Your task to perform on an android device: Do I have any events tomorrow? Image 0: 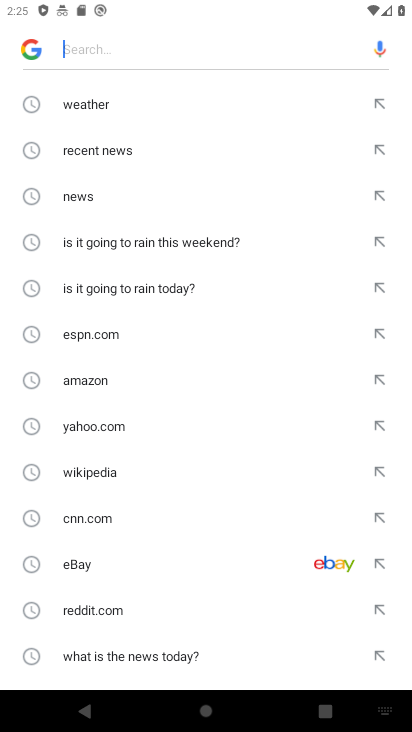
Step 0: press back button
Your task to perform on an android device: Do I have any events tomorrow? Image 1: 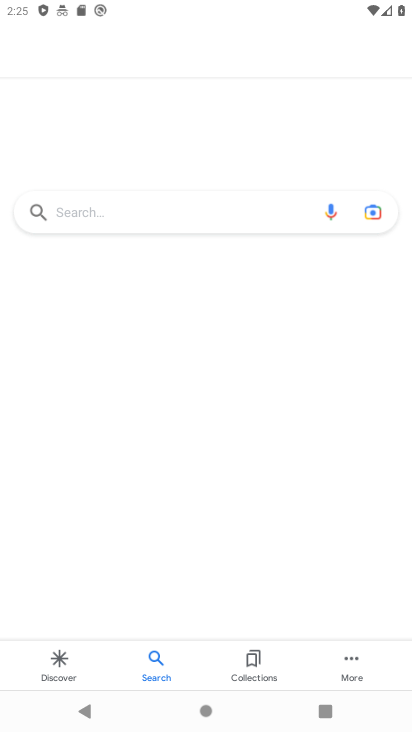
Step 1: press home button
Your task to perform on an android device: Do I have any events tomorrow? Image 2: 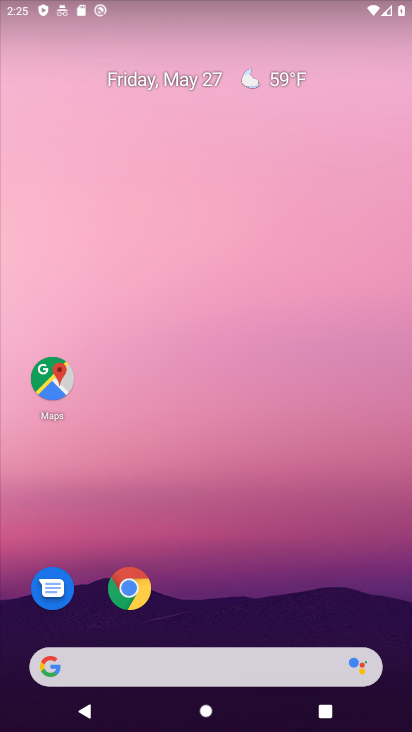
Step 2: drag from (260, 604) to (197, 298)
Your task to perform on an android device: Do I have any events tomorrow? Image 3: 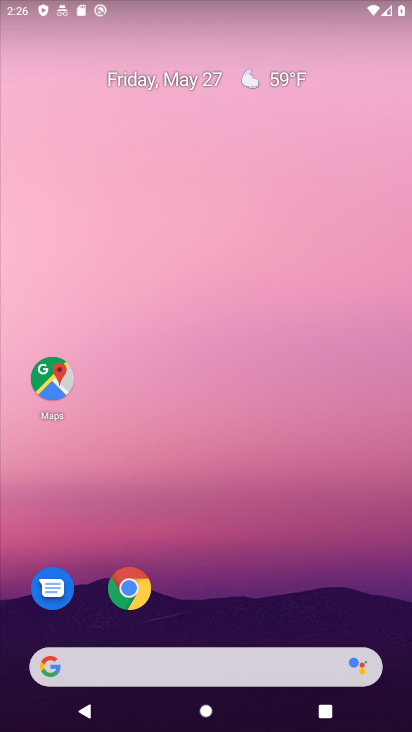
Step 3: drag from (285, 662) to (225, 58)
Your task to perform on an android device: Do I have any events tomorrow? Image 4: 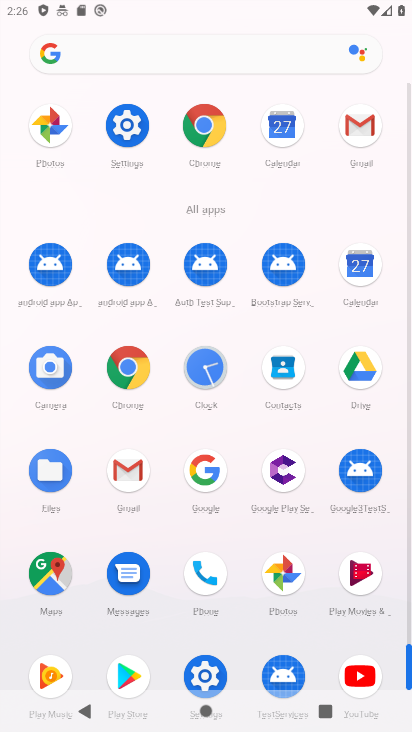
Step 4: click (358, 256)
Your task to perform on an android device: Do I have any events tomorrow? Image 5: 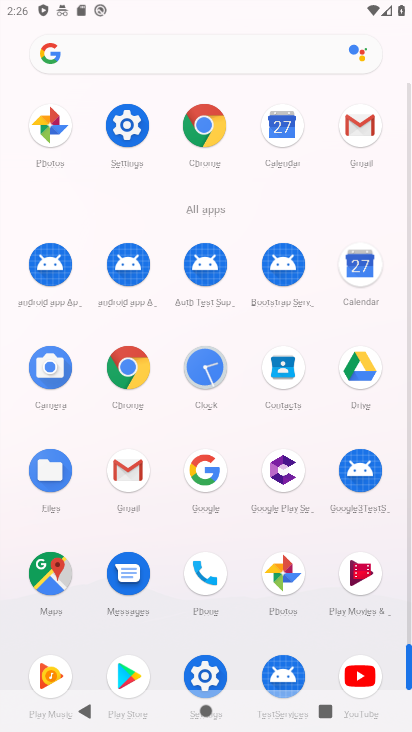
Step 5: click (358, 256)
Your task to perform on an android device: Do I have any events tomorrow? Image 6: 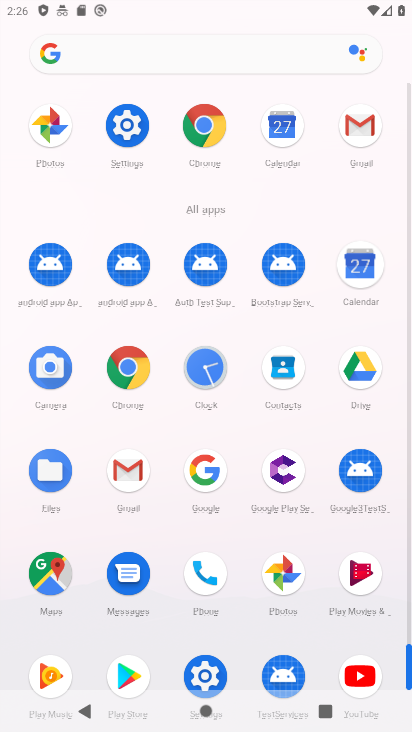
Step 6: click (358, 256)
Your task to perform on an android device: Do I have any events tomorrow? Image 7: 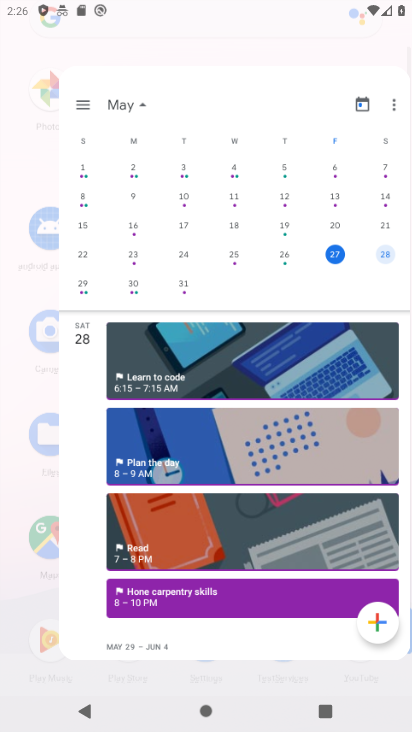
Step 7: click (358, 256)
Your task to perform on an android device: Do I have any events tomorrow? Image 8: 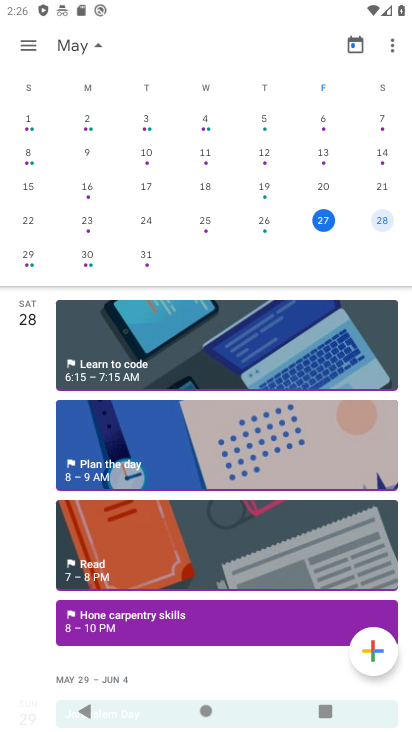
Step 8: click (140, 248)
Your task to perform on an android device: Do I have any events tomorrow? Image 9: 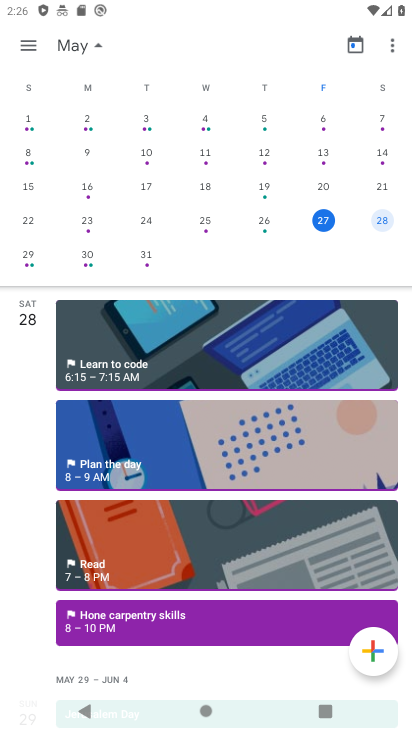
Step 9: click (140, 249)
Your task to perform on an android device: Do I have any events tomorrow? Image 10: 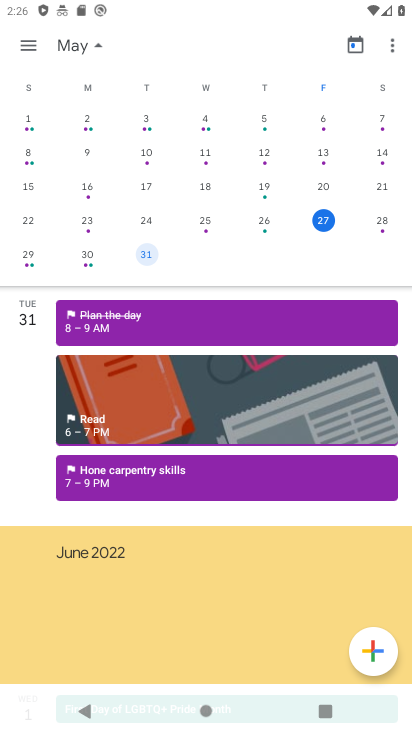
Step 10: click (140, 249)
Your task to perform on an android device: Do I have any events tomorrow? Image 11: 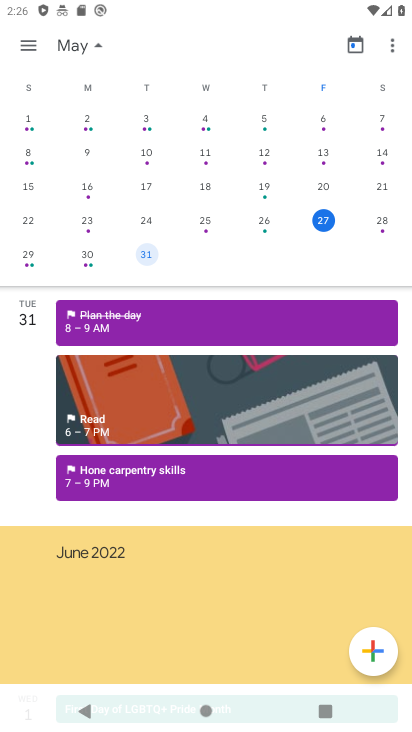
Step 11: click (140, 249)
Your task to perform on an android device: Do I have any events tomorrow? Image 12: 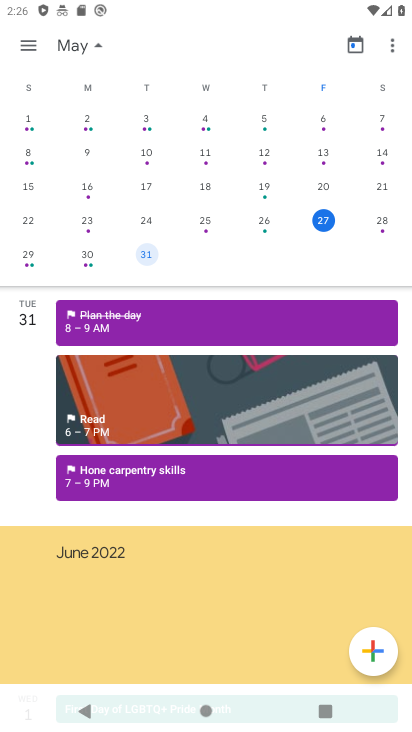
Step 12: click (140, 249)
Your task to perform on an android device: Do I have any events tomorrow? Image 13: 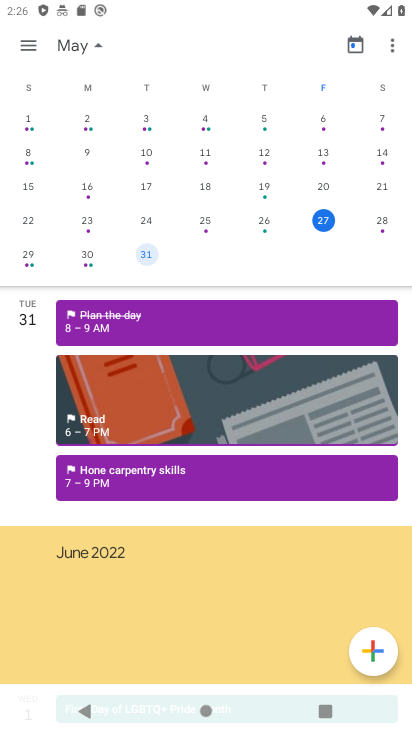
Step 13: task complete